Your task to perform on an android device: Open Google Chrome and click the shortcut for Amazon.com Image 0: 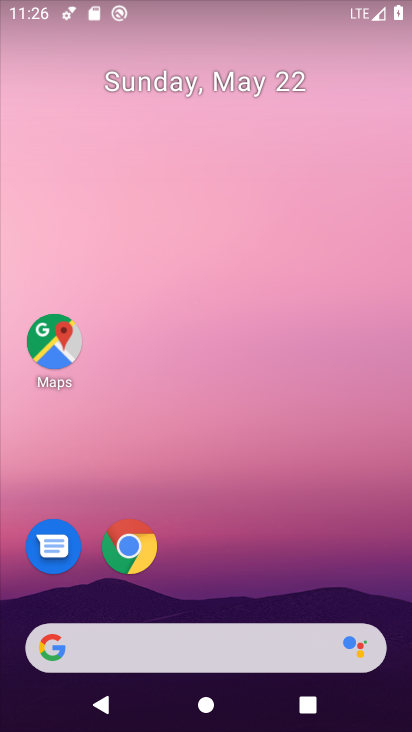
Step 0: click (142, 555)
Your task to perform on an android device: Open Google Chrome and click the shortcut for Amazon.com Image 1: 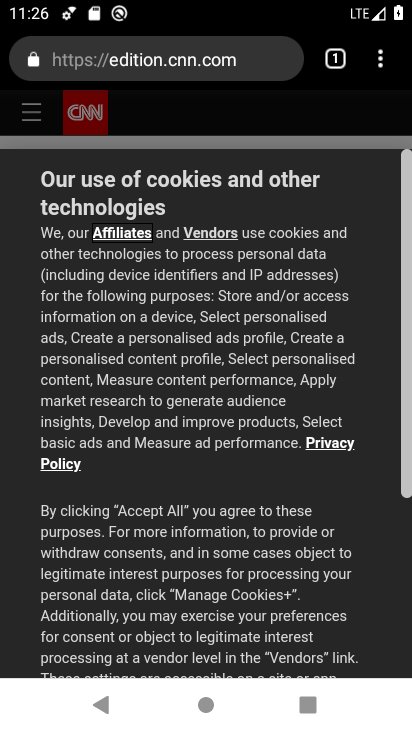
Step 1: click (200, 65)
Your task to perform on an android device: Open Google Chrome and click the shortcut for Amazon.com Image 2: 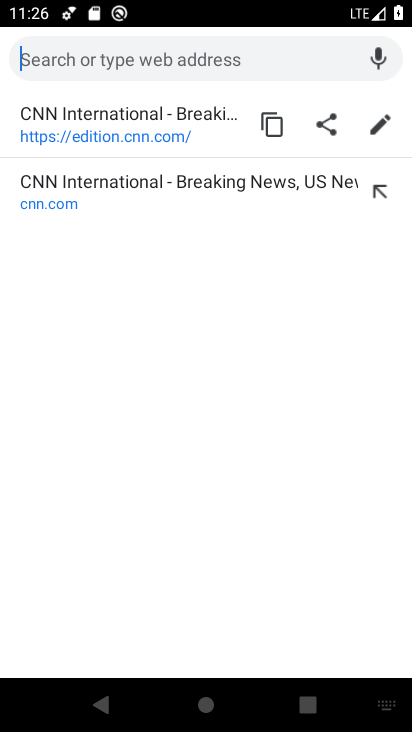
Step 2: type "amazon"
Your task to perform on an android device: Open Google Chrome and click the shortcut for Amazon.com Image 3: 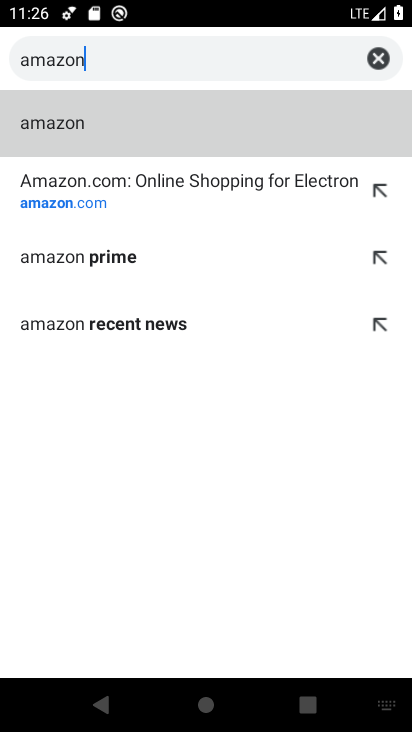
Step 3: click (229, 192)
Your task to perform on an android device: Open Google Chrome and click the shortcut for Amazon.com Image 4: 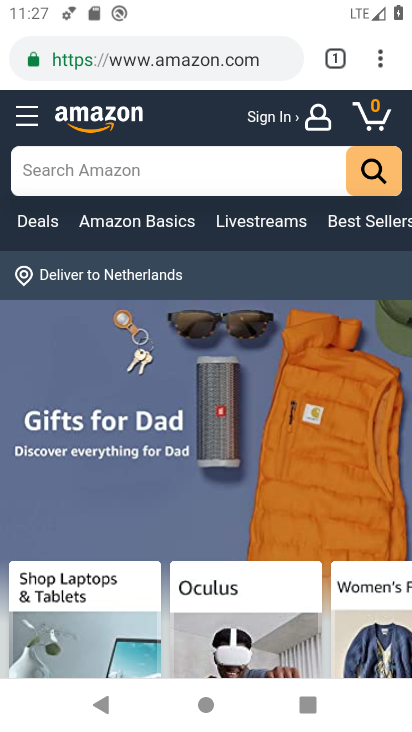
Step 4: task complete